Your task to perform on an android device: clear all cookies in the chrome app Image 0: 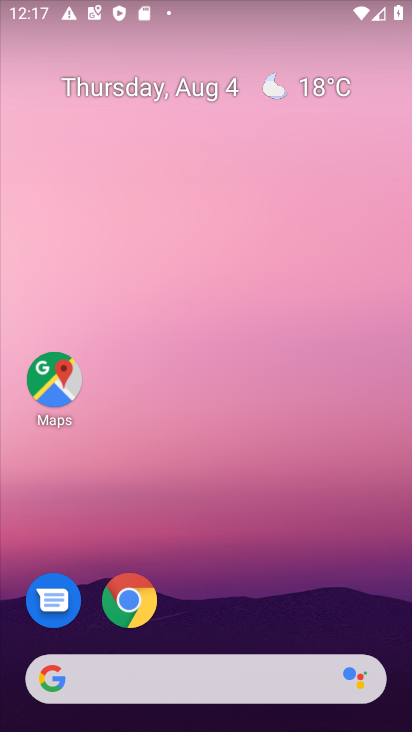
Step 0: click (130, 601)
Your task to perform on an android device: clear all cookies in the chrome app Image 1: 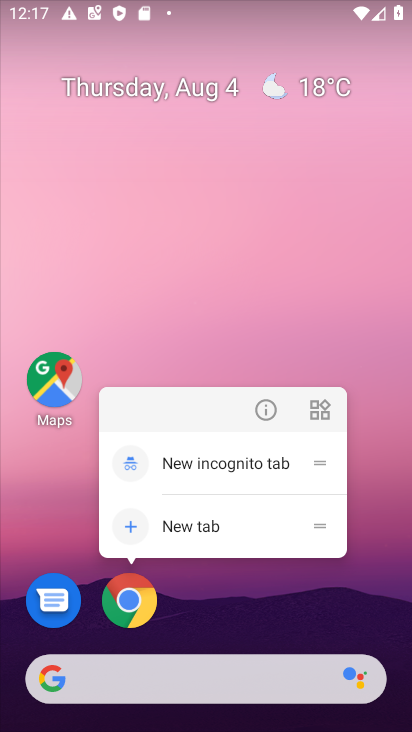
Step 1: click (130, 602)
Your task to perform on an android device: clear all cookies in the chrome app Image 2: 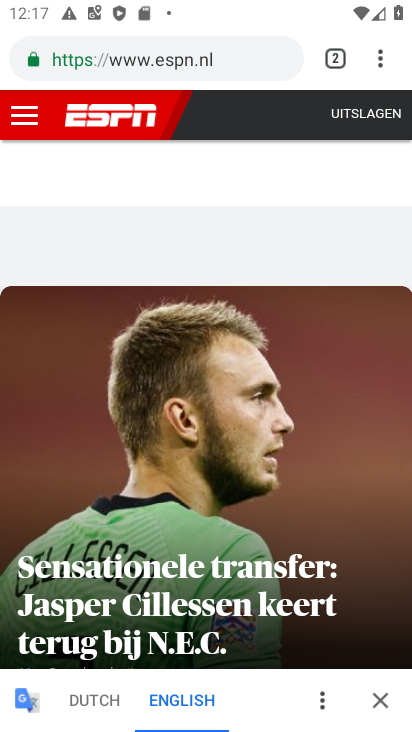
Step 2: drag from (381, 58) to (263, 631)
Your task to perform on an android device: clear all cookies in the chrome app Image 3: 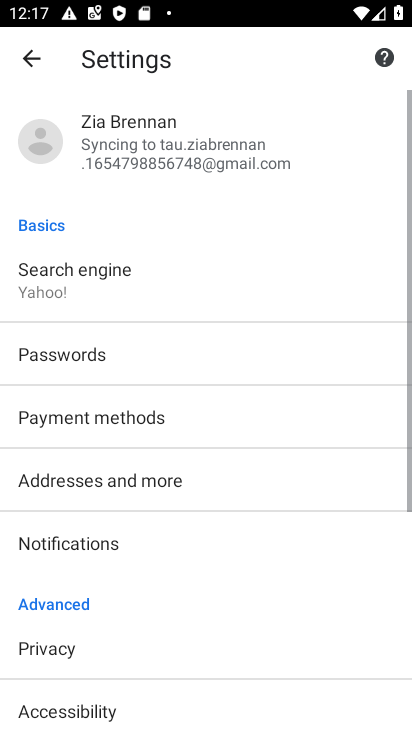
Step 3: drag from (196, 676) to (299, 251)
Your task to perform on an android device: clear all cookies in the chrome app Image 4: 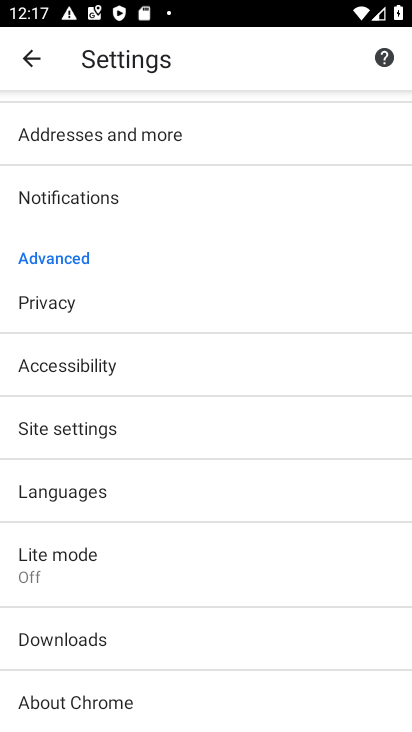
Step 4: click (109, 429)
Your task to perform on an android device: clear all cookies in the chrome app Image 5: 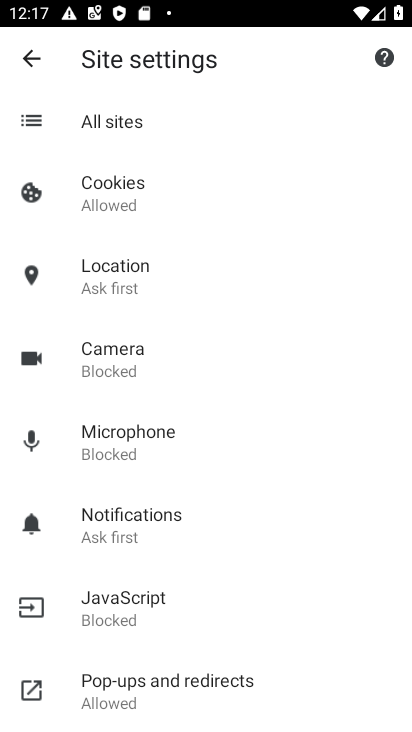
Step 5: click (23, 53)
Your task to perform on an android device: clear all cookies in the chrome app Image 6: 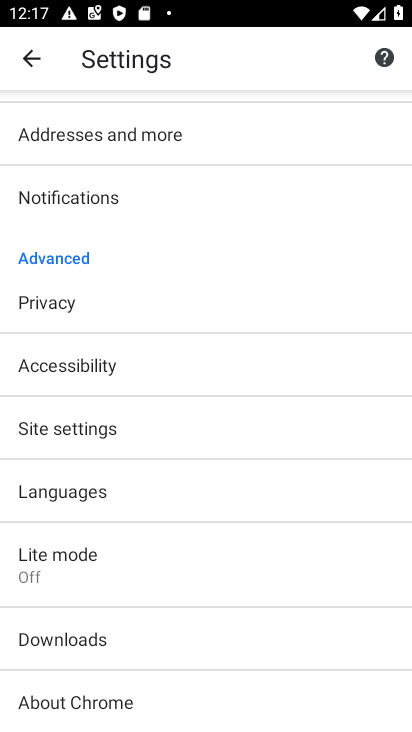
Step 6: click (64, 302)
Your task to perform on an android device: clear all cookies in the chrome app Image 7: 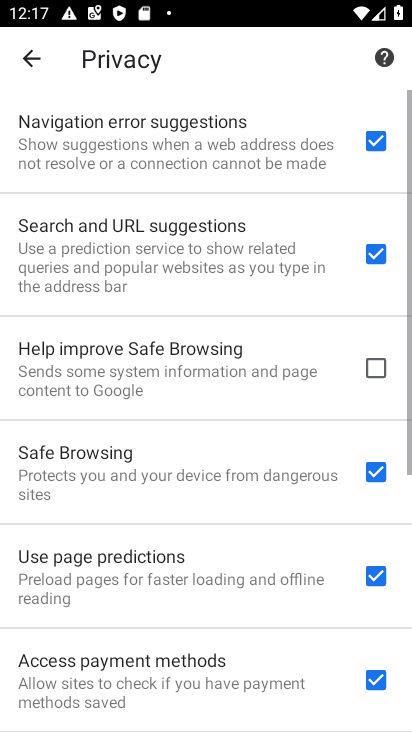
Step 7: drag from (177, 644) to (324, 62)
Your task to perform on an android device: clear all cookies in the chrome app Image 8: 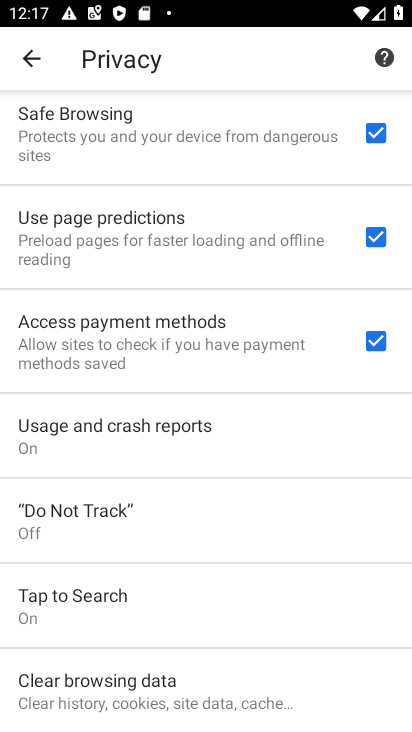
Step 8: click (138, 694)
Your task to perform on an android device: clear all cookies in the chrome app Image 9: 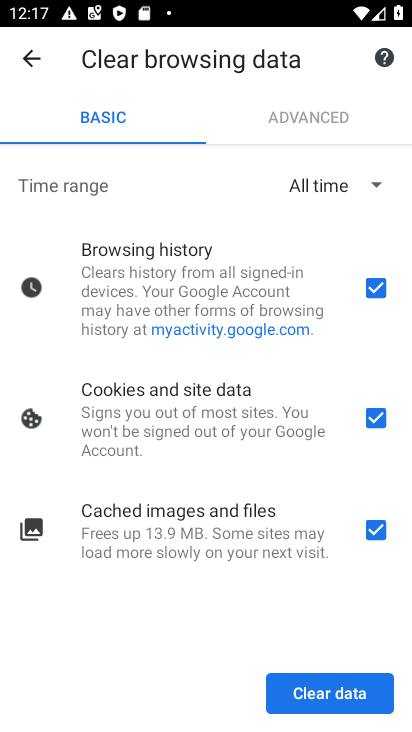
Step 9: click (378, 271)
Your task to perform on an android device: clear all cookies in the chrome app Image 10: 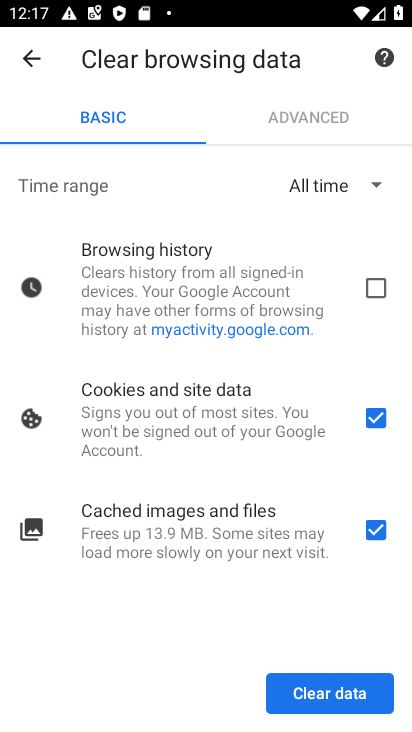
Step 10: click (380, 530)
Your task to perform on an android device: clear all cookies in the chrome app Image 11: 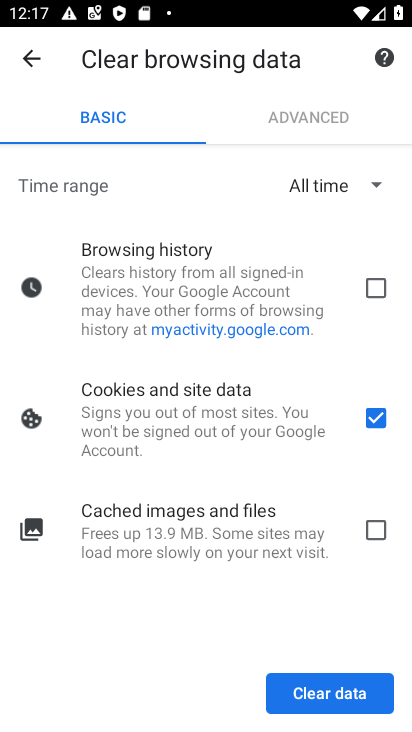
Step 11: click (334, 699)
Your task to perform on an android device: clear all cookies in the chrome app Image 12: 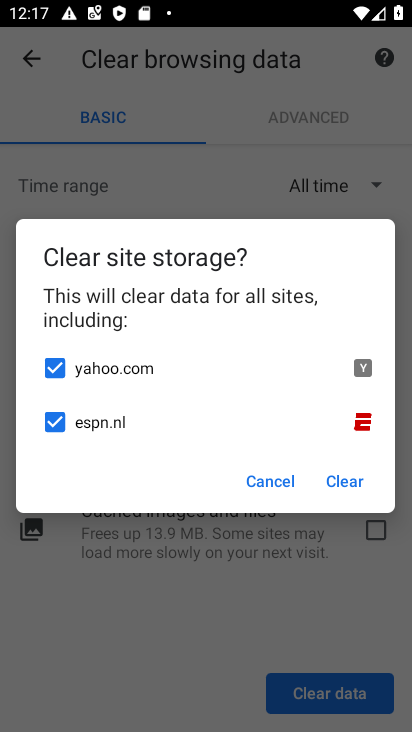
Step 12: click (350, 477)
Your task to perform on an android device: clear all cookies in the chrome app Image 13: 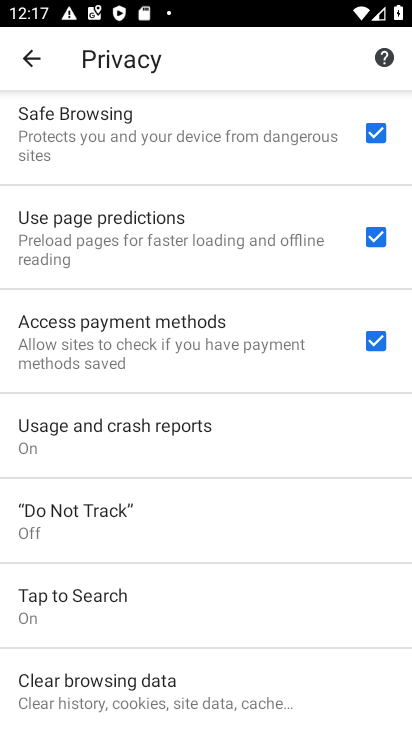
Step 13: task complete